Your task to perform on an android device: turn pop-ups on in chrome Image 0: 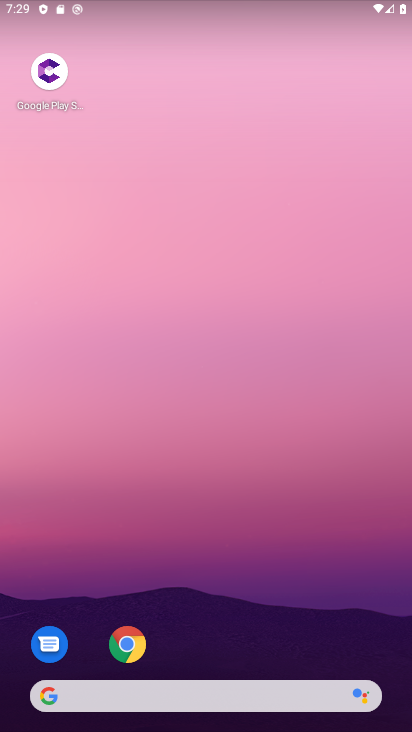
Step 0: click (124, 651)
Your task to perform on an android device: turn pop-ups on in chrome Image 1: 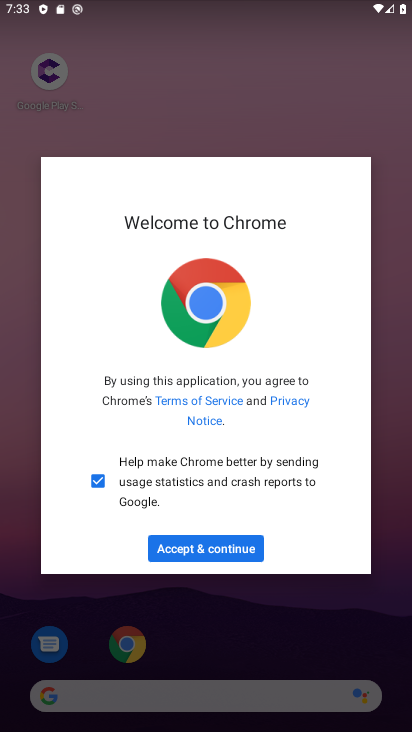
Step 1: click (204, 552)
Your task to perform on an android device: turn pop-ups on in chrome Image 2: 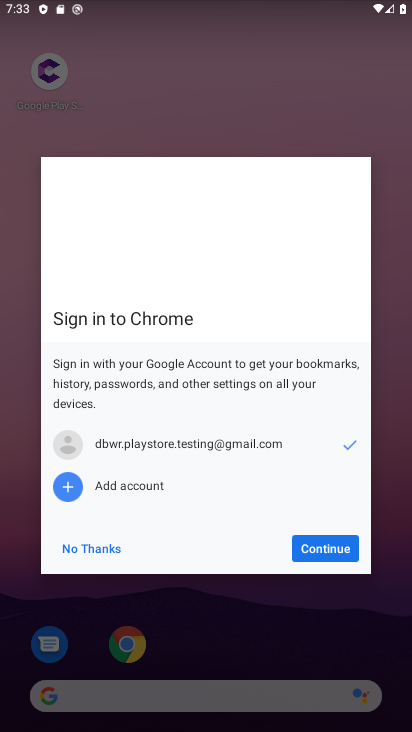
Step 2: click (330, 539)
Your task to perform on an android device: turn pop-ups on in chrome Image 3: 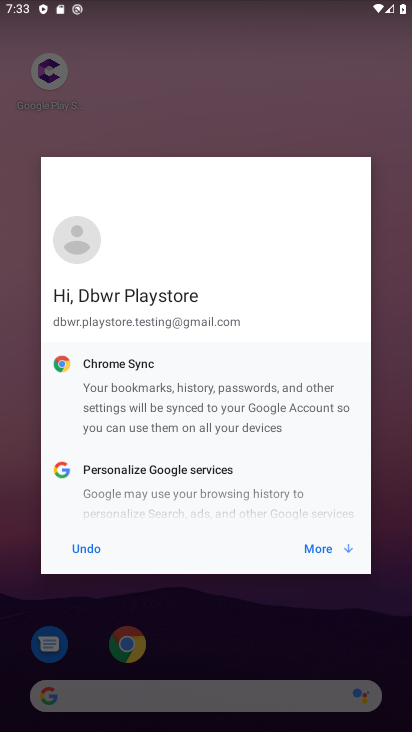
Step 3: click (330, 546)
Your task to perform on an android device: turn pop-ups on in chrome Image 4: 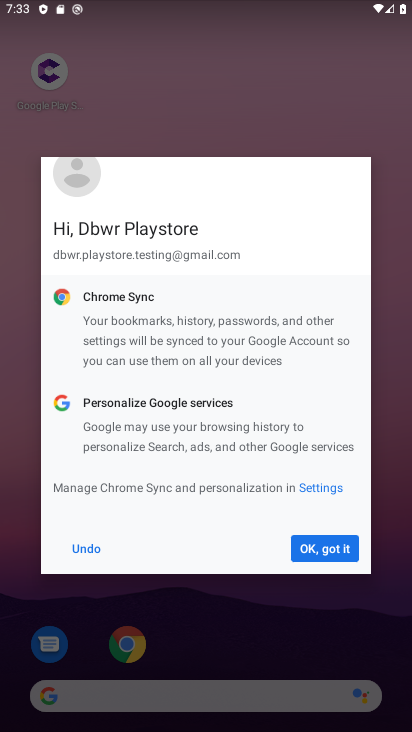
Step 4: click (330, 546)
Your task to perform on an android device: turn pop-ups on in chrome Image 5: 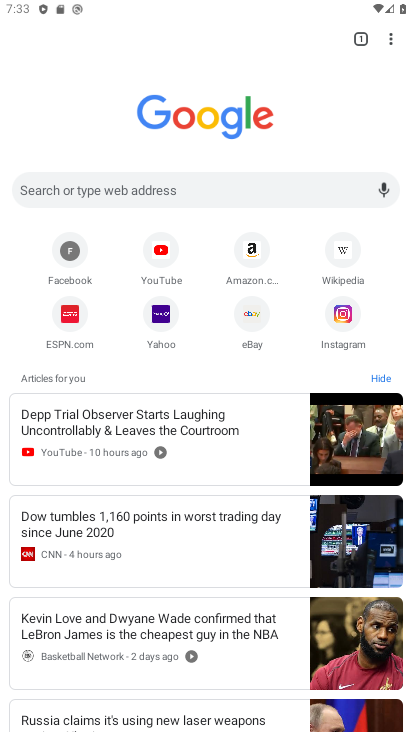
Step 5: click (393, 35)
Your task to perform on an android device: turn pop-ups on in chrome Image 6: 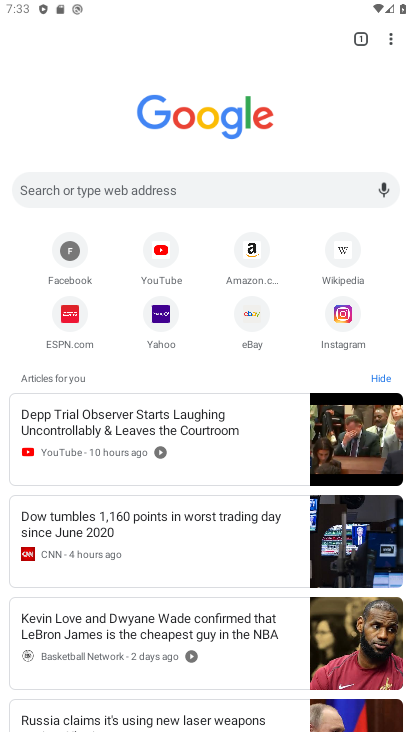
Step 6: click (390, 35)
Your task to perform on an android device: turn pop-ups on in chrome Image 7: 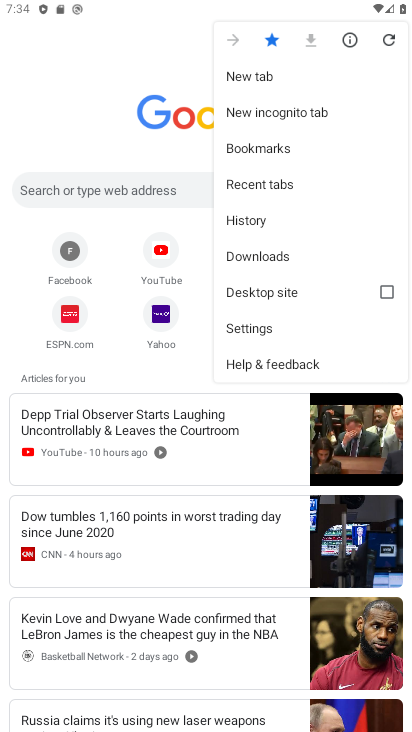
Step 7: click (236, 318)
Your task to perform on an android device: turn pop-ups on in chrome Image 8: 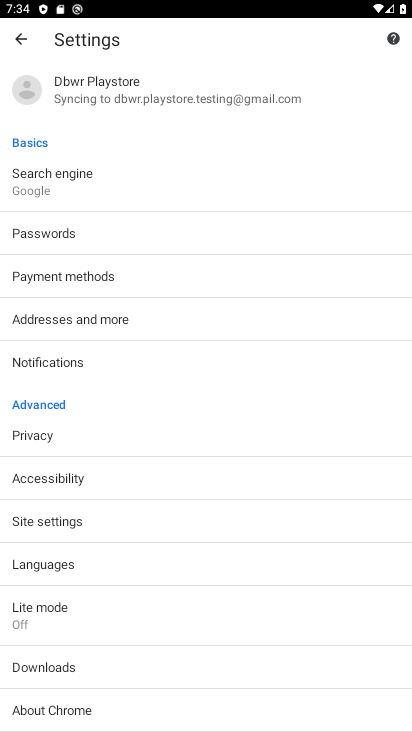
Step 8: drag from (223, 668) to (233, 387)
Your task to perform on an android device: turn pop-ups on in chrome Image 9: 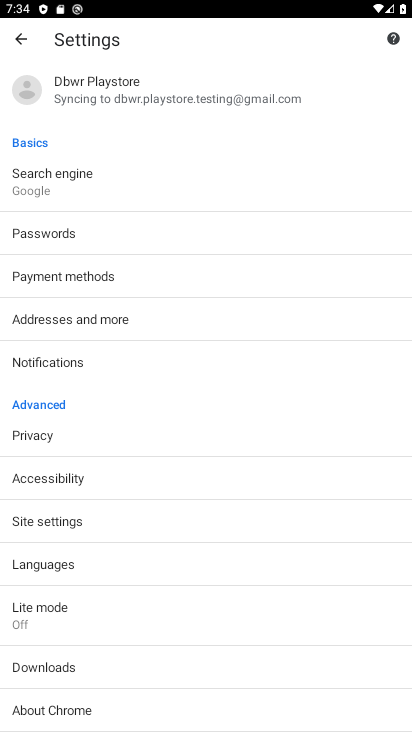
Step 9: click (44, 516)
Your task to perform on an android device: turn pop-ups on in chrome Image 10: 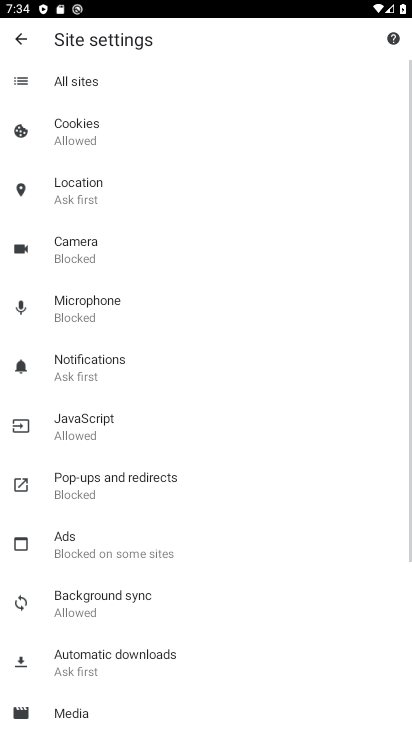
Step 10: click (92, 485)
Your task to perform on an android device: turn pop-ups on in chrome Image 11: 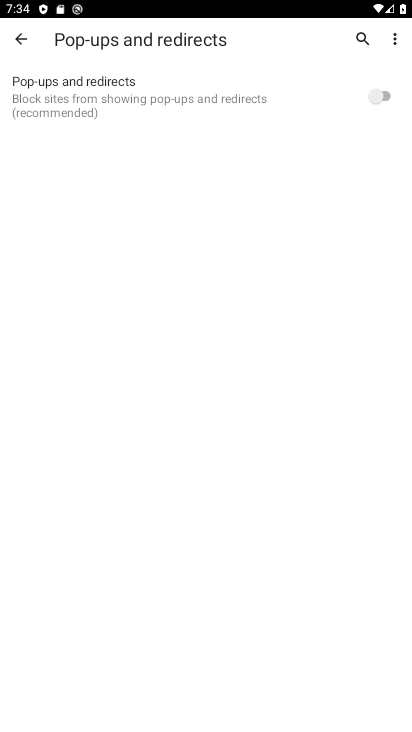
Step 11: click (377, 95)
Your task to perform on an android device: turn pop-ups on in chrome Image 12: 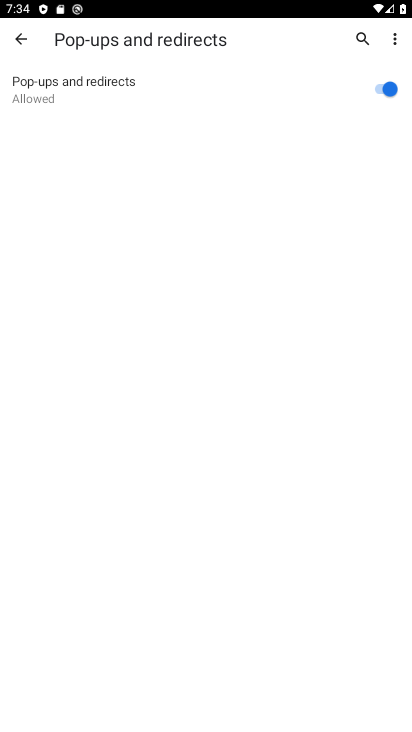
Step 12: task complete